Your task to perform on an android device: toggle data saver in the chrome app Image 0: 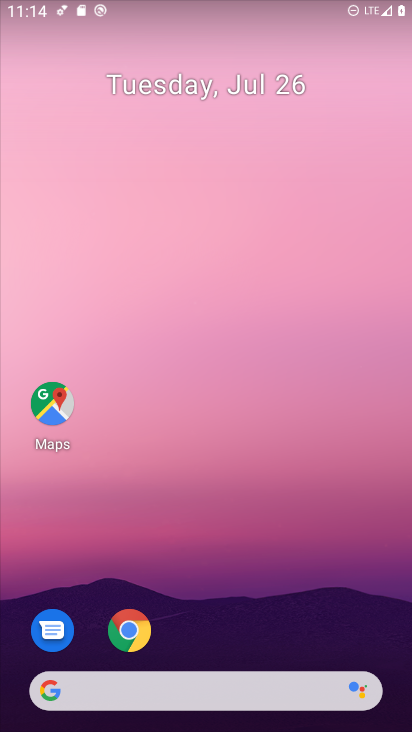
Step 0: click (127, 634)
Your task to perform on an android device: toggle data saver in the chrome app Image 1: 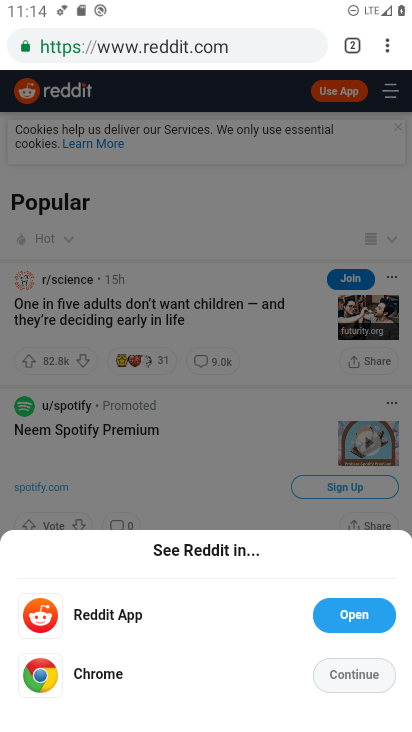
Step 1: click (385, 51)
Your task to perform on an android device: toggle data saver in the chrome app Image 2: 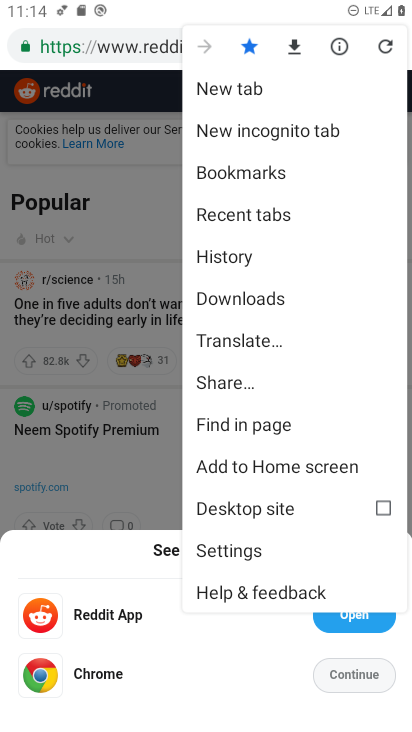
Step 2: click (222, 545)
Your task to perform on an android device: toggle data saver in the chrome app Image 3: 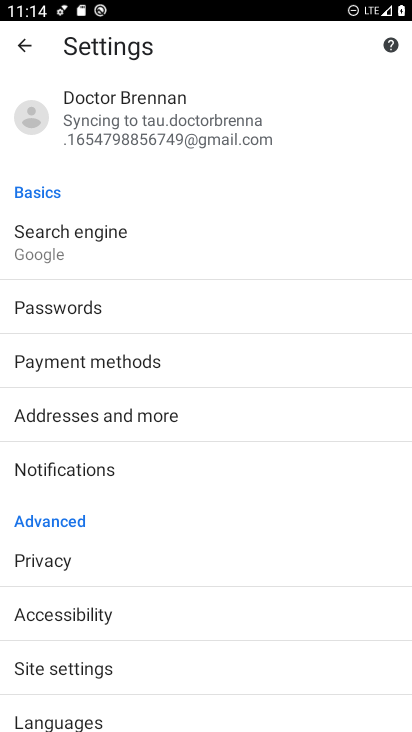
Step 3: drag from (190, 678) to (198, 353)
Your task to perform on an android device: toggle data saver in the chrome app Image 4: 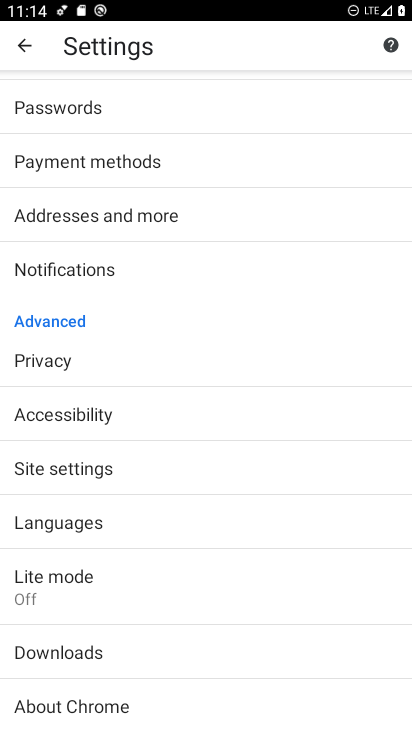
Step 4: click (46, 583)
Your task to perform on an android device: toggle data saver in the chrome app Image 5: 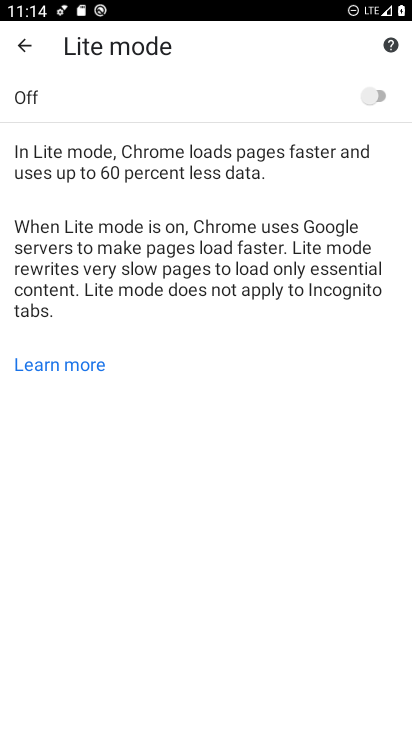
Step 5: click (382, 94)
Your task to perform on an android device: toggle data saver in the chrome app Image 6: 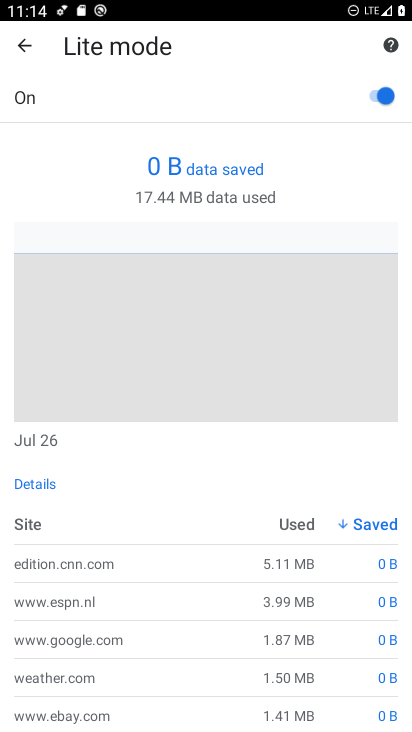
Step 6: task complete